Your task to perform on an android device: Open CNN.com Image 0: 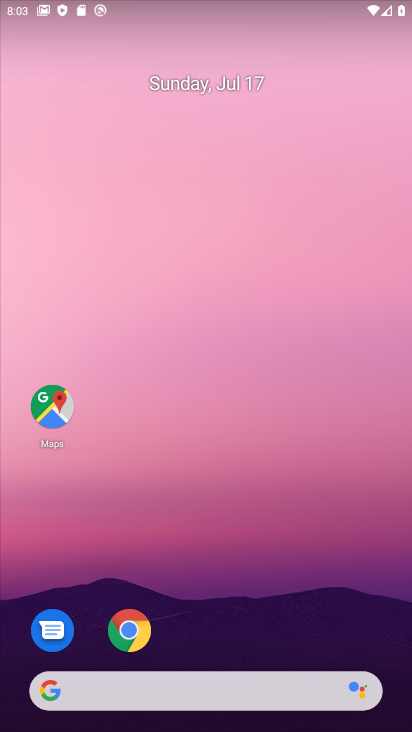
Step 0: click (128, 637)
Your task to perform on an android device: Open CNN.com Image 1: 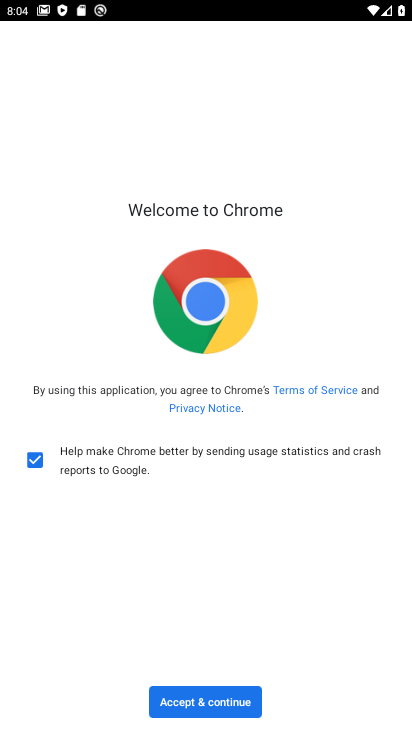
Step 1: click (186, 696)
Your task to perform on an android device: Open CNN.com Image 2: 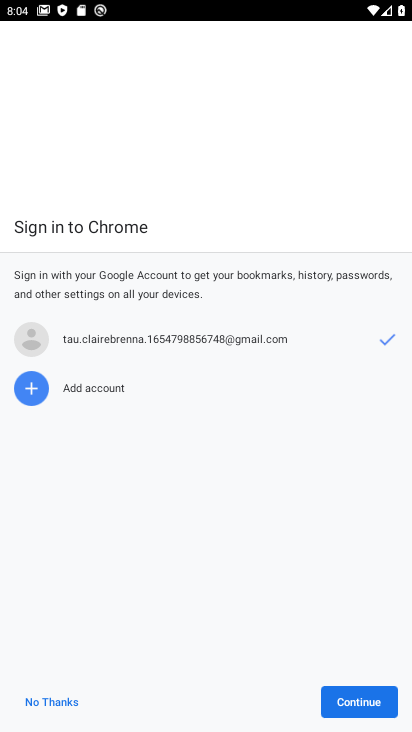
Step 2: click (369, 706)
Your task to perform on an android device: Open CNN.com Image 3: 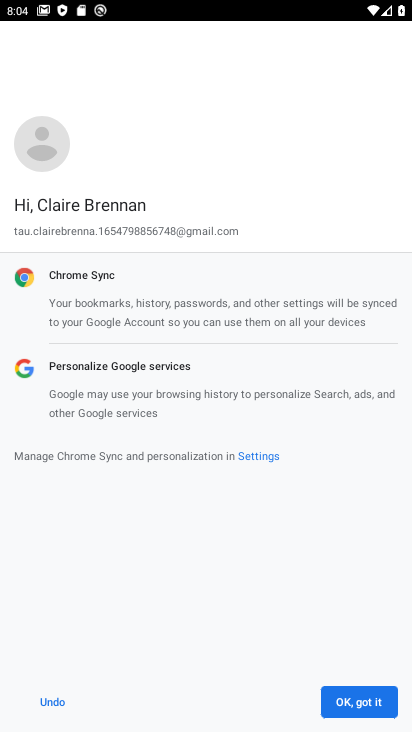
Step 3: click (369, 706)
Your task to perform on an android device: Open CNN.com Image 4: 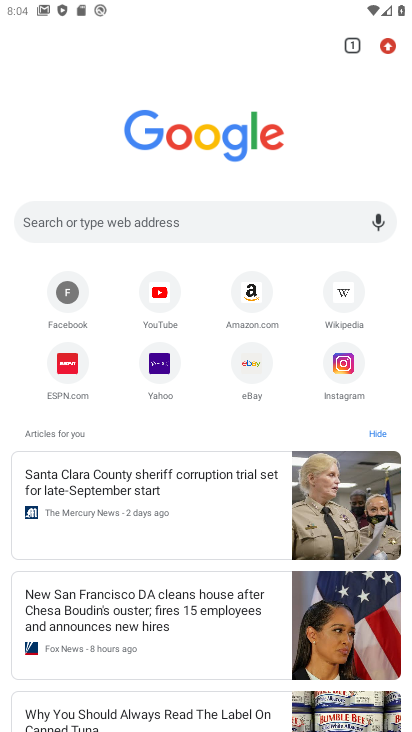
Step 4: click (202, 221)
Your task to perform on an android device: Open CNN.com Image 5: 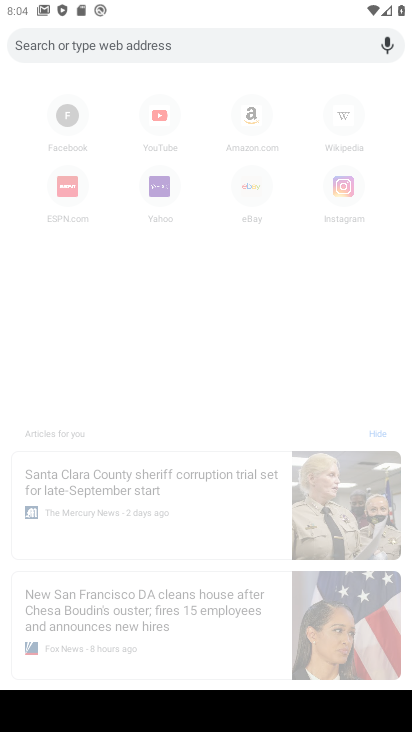
Step 5: type "CNN.com"
Your task to perform on an android device: Open CNN.com Image 6: 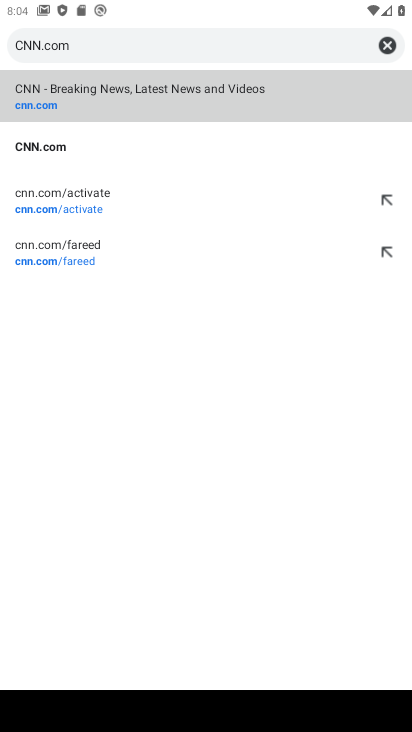
Step 6: click (231, 85)
Your task to perform on an android device: Open CNN.com Image 7: 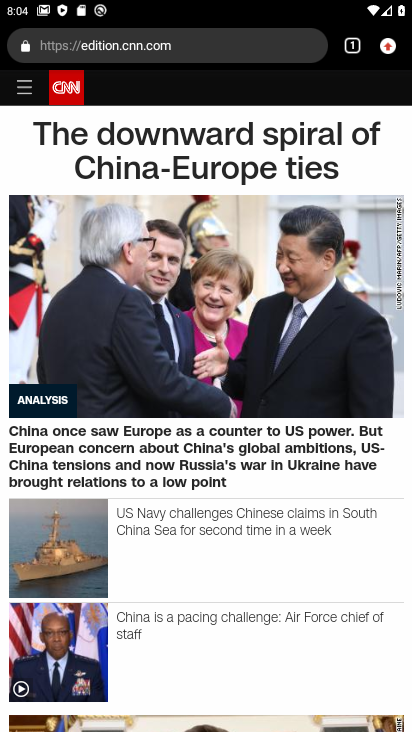
Step 7: task complete